Your task to perform on an android device: Open CNN.com Image 0: 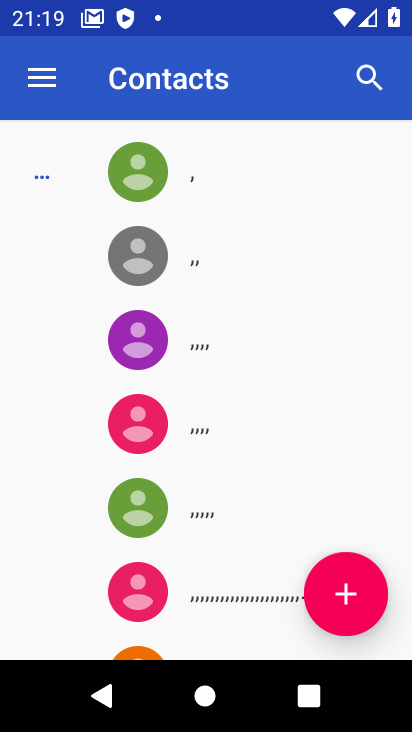
Step 0: press home button
Your task to perform on an android device: Open CNN.com Image 1: 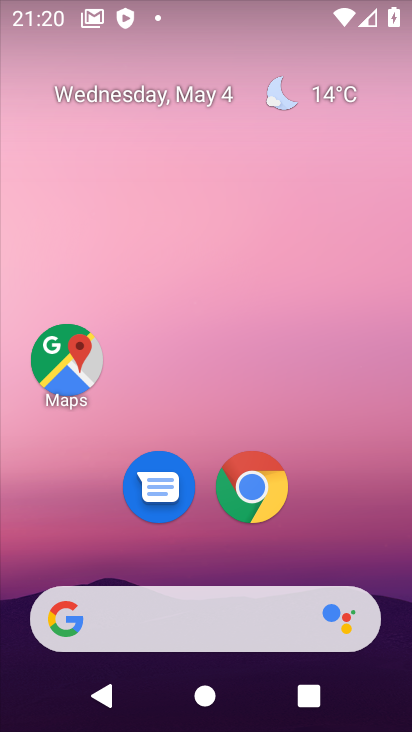
Step 1: click (252, 490)
Your task to perform on an android device: Open CNN.com Image 2: 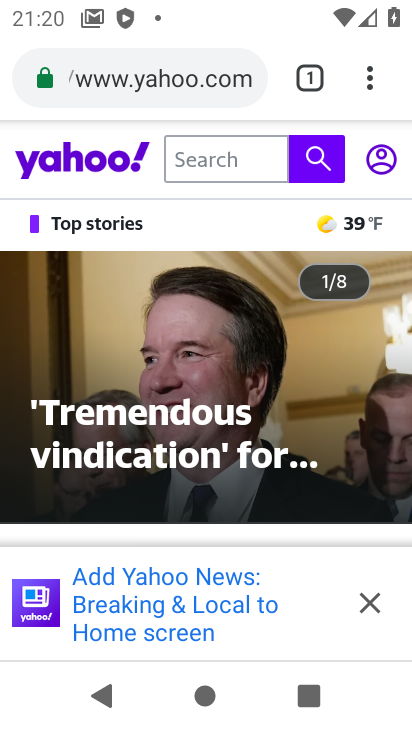
Step 2: click (306, 79)
Your task to perform on an android device: Open CNN.com Image 3: 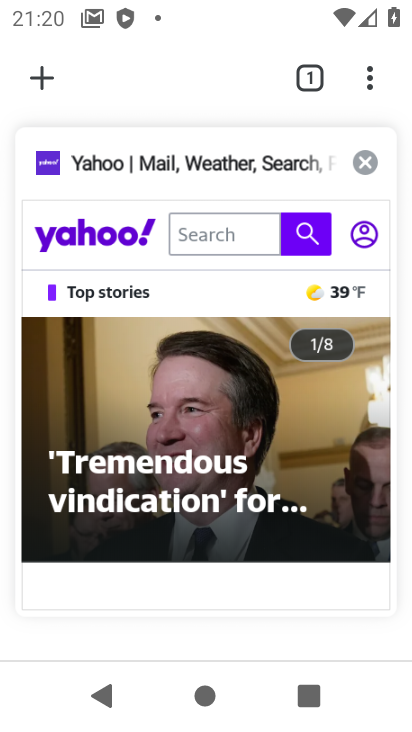
Step 3: click (40, 73)
Your task to perform on an android device: Open CNN.com Image 4: 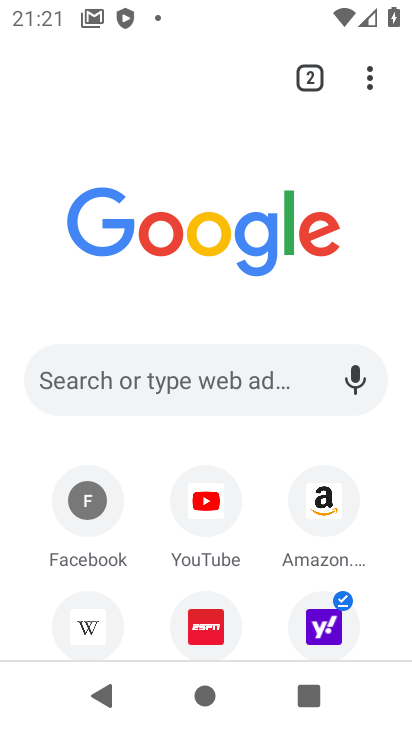
Step 4: click (176, 386)
Your task to perform on an android device: Open CNN.com Image 5: 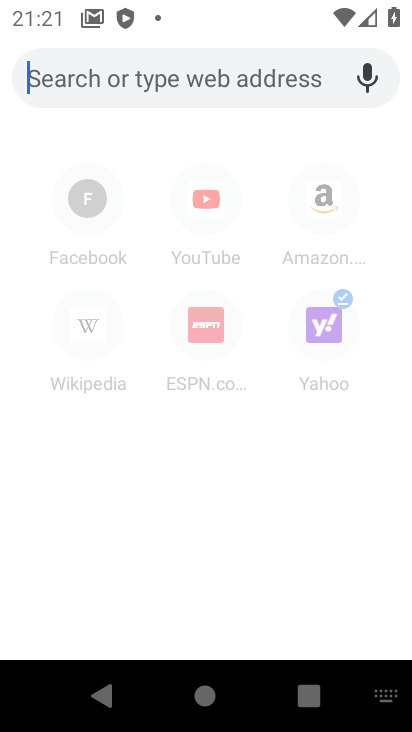
Step 5: type "cnn.com"
Your task to perform on an android device: Open CNN.com Image 6: 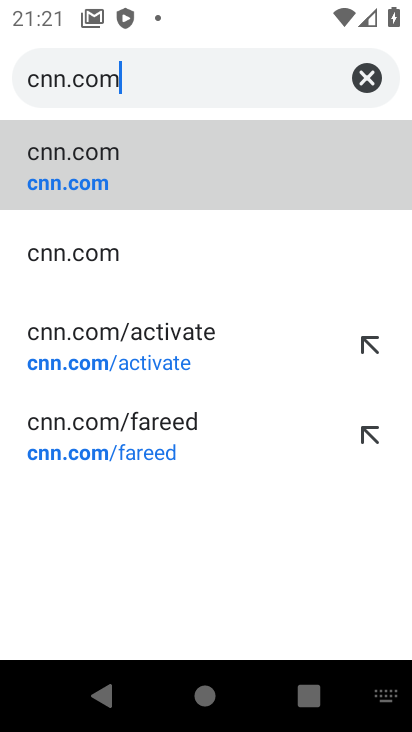
Step 6: click (166, 171)
Your task to perform on an android device: Open CNN.com Image 7: 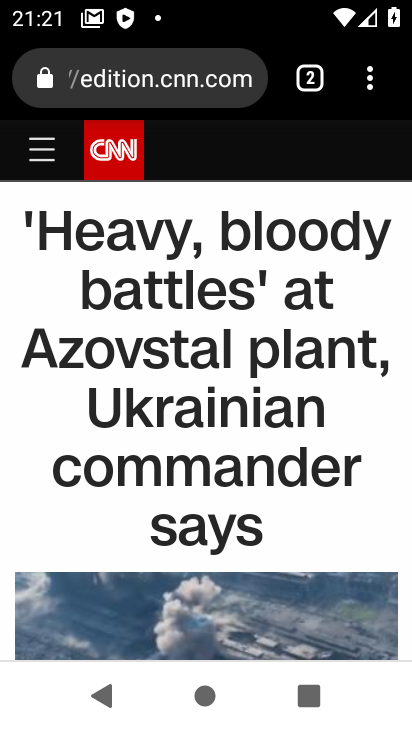
Step 7: task complete